Your task to perform on an android device: remove spam from my inbox in the gmail app Image 0: 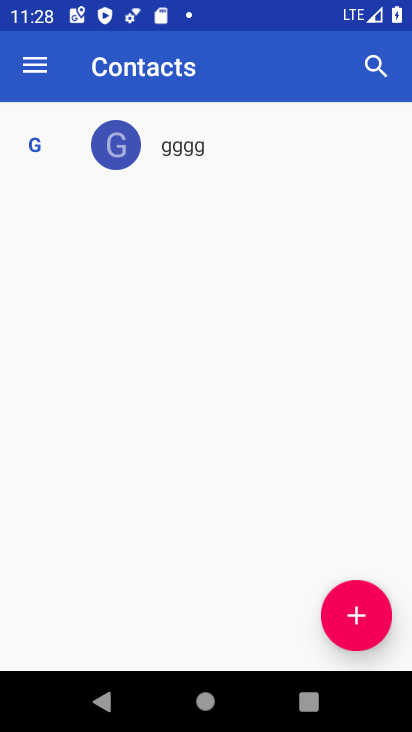
Step 0: press home button
Your task to perform on an android device: remove spam from my inbox in the gmail app Image 1: 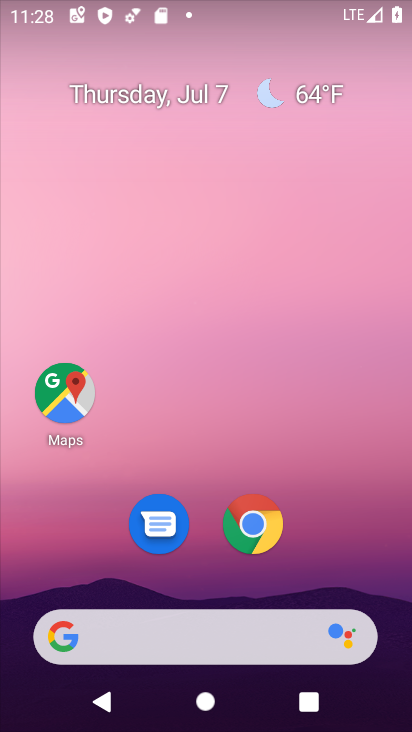
Step 1: drag from (326, 529) to (296, 9)
Your task to perform on an android device: remove spam from my inbox in the gmail app Image 2: 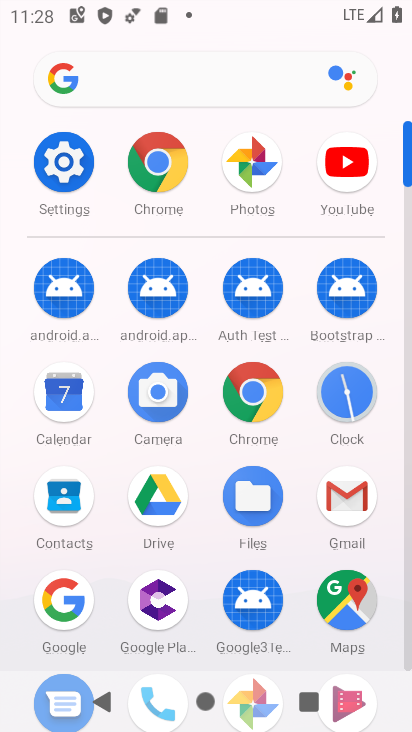
Step 2: click (348, 492)
Your task to perform on an android device: remove spam from my inbox in the gmail app Image 3: 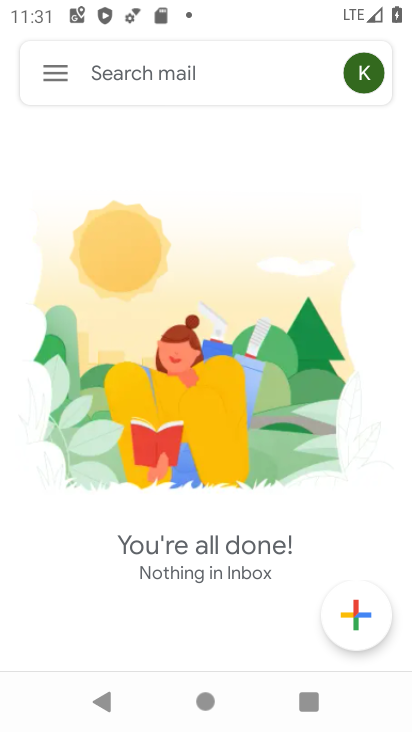
Step 3: task complete